Your task to perform on an android device: Open Youtube and go to the subscriptions tab Image 0: 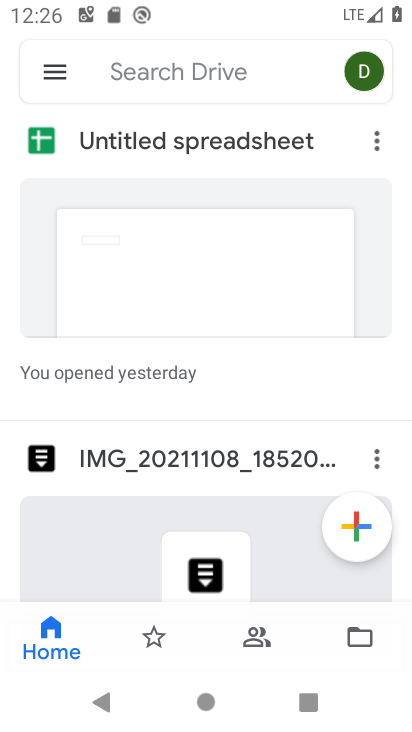
Step 0: press home button
Your task to perform on an android device: Open Youtube and go to the subscriptions tab Image 1: 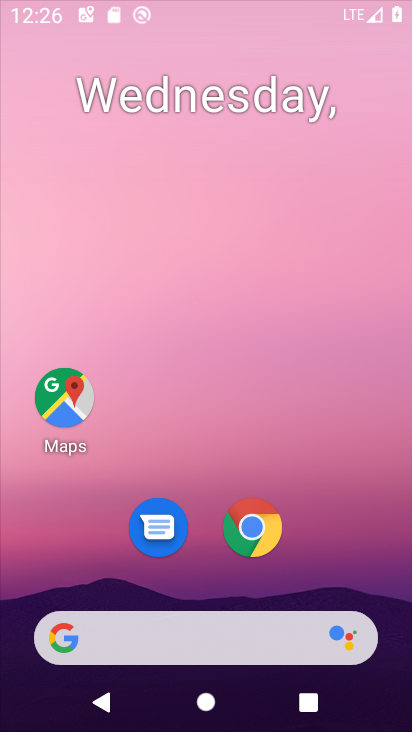
Step 1: drag from (296, 610) to (281, 13)
Your task to perform on an android device: Open Youtube and go to the subscriptions tab Image 2: 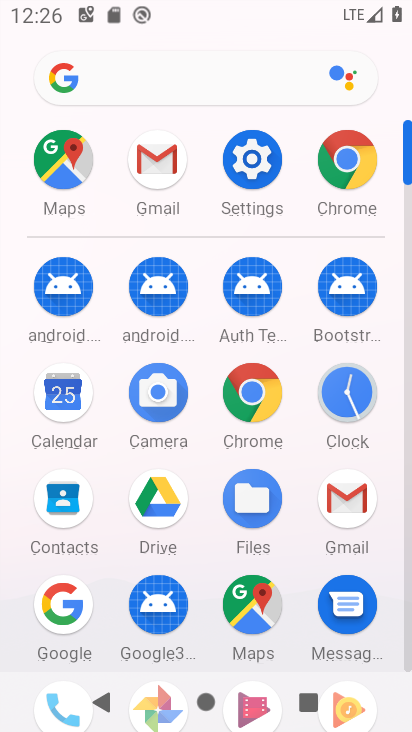
Step 2: drag from (303, 634) to (326, 243)
Your task to perform on an android device: Open Youtube and go to the subscriptions tab Image 3: 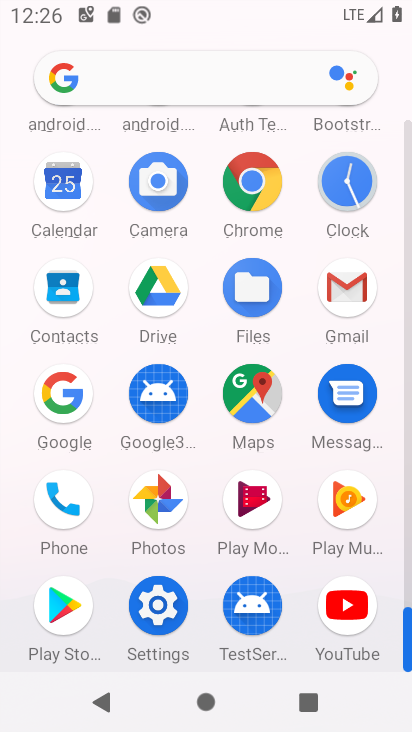
Step 3: click (344, 598)
Your task to perform on an android device: Open Youtube and go to the subscriptions tab Image 4: 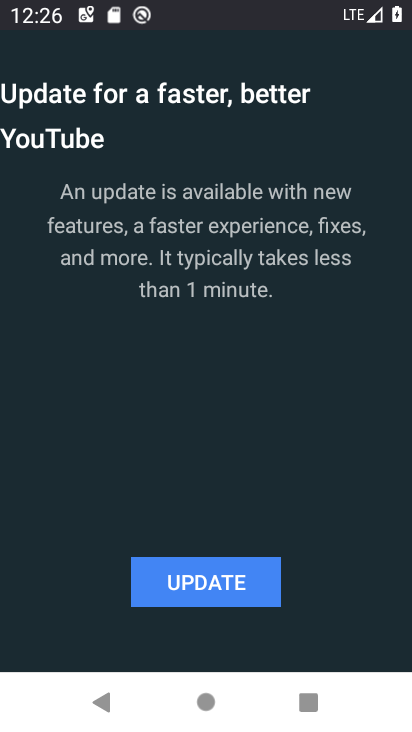
Step 4: drag from (346, 597) to (243, 597)
Your task to perform on an android device: Open Youtube and go to the subscriptions tab Image 5: 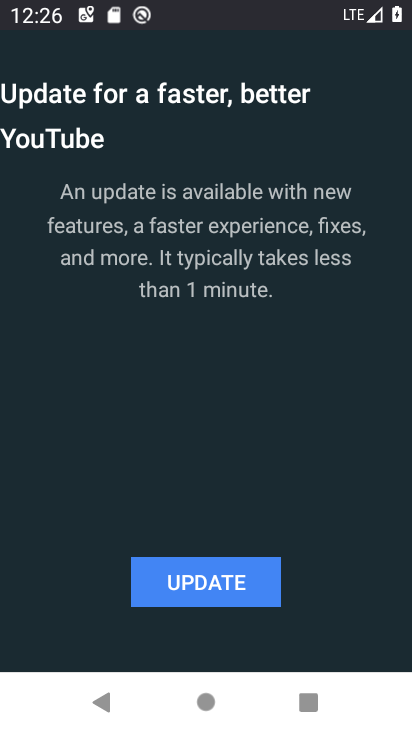
Step 5: click (189, 590)
Your task to perform on an android device: Open Youtube and go to the subscriptions tab Image 6: 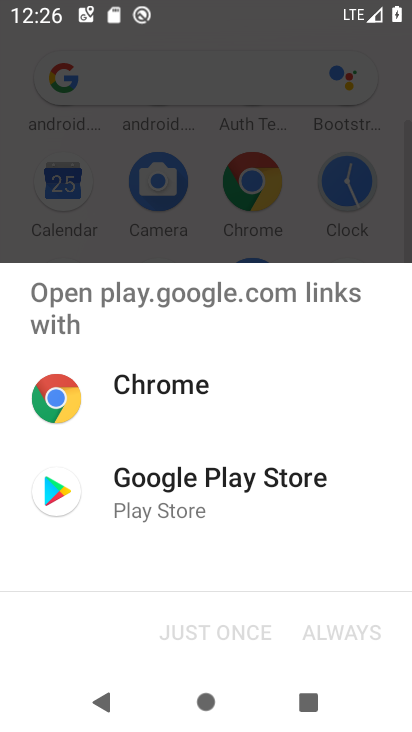
Step 6: click (174, 484)
Your task to perform on an android device: Open Youtube and go to the subscriptions tab Image 7: 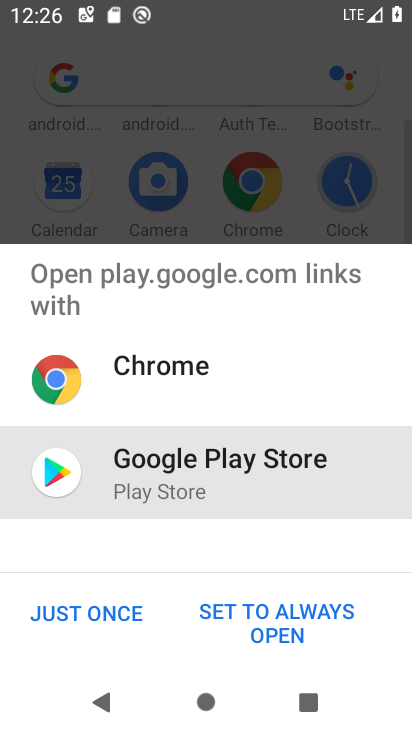
Step 7: click (106, 605)
Your task to perform on an android device: Open Youtube and go to the subscriptions tab Image 8: 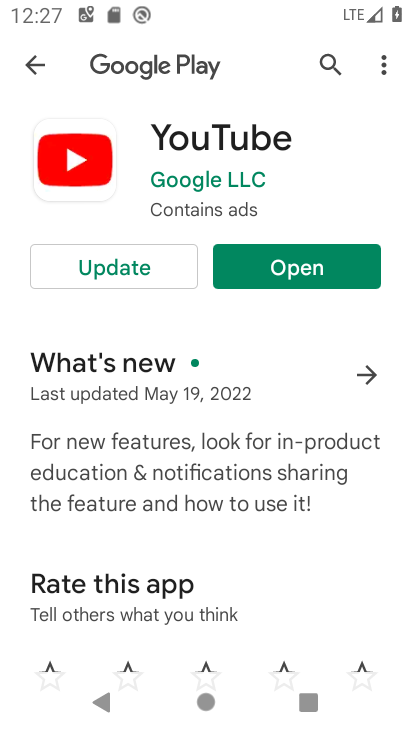
Step 8: click (128, 270)
Your task to perform on an android device: Open Youtube and go to the subscriptions tab Image 9: 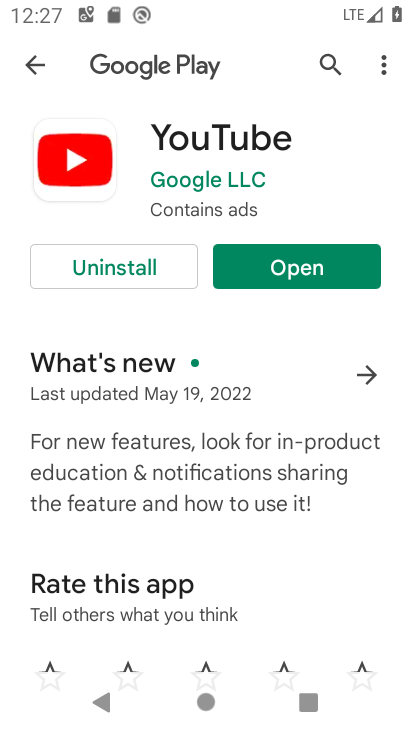
Step 9: click (256, 272)
Your task to perform on an android device: Open Youtube and go to the subscriptions tab Image 10: 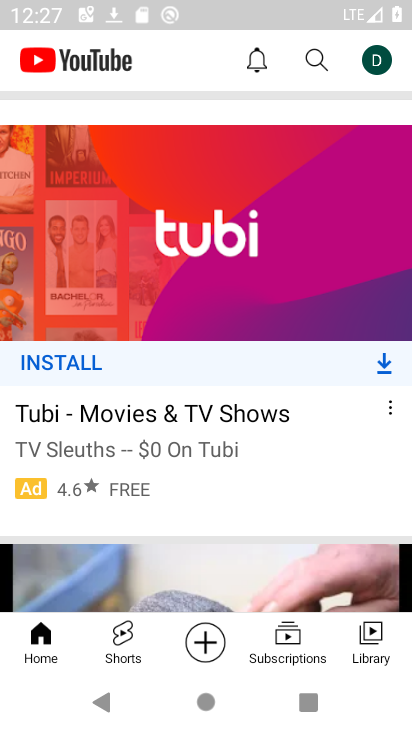
Step 10: click (284, 646)
Your task to perform on an android device: Open Youtube and go to the subscriptions tab Image 11: 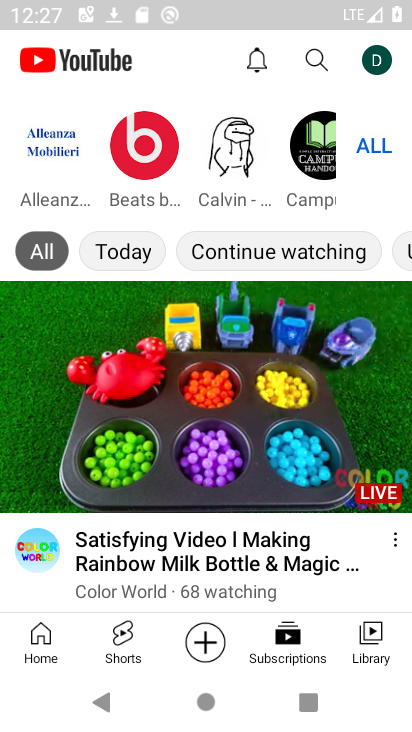
Step 11: task complete